Your task to perform on an android device: open app "DuckDuckGo Privacy Browser" (install if not already installed) Image 0: 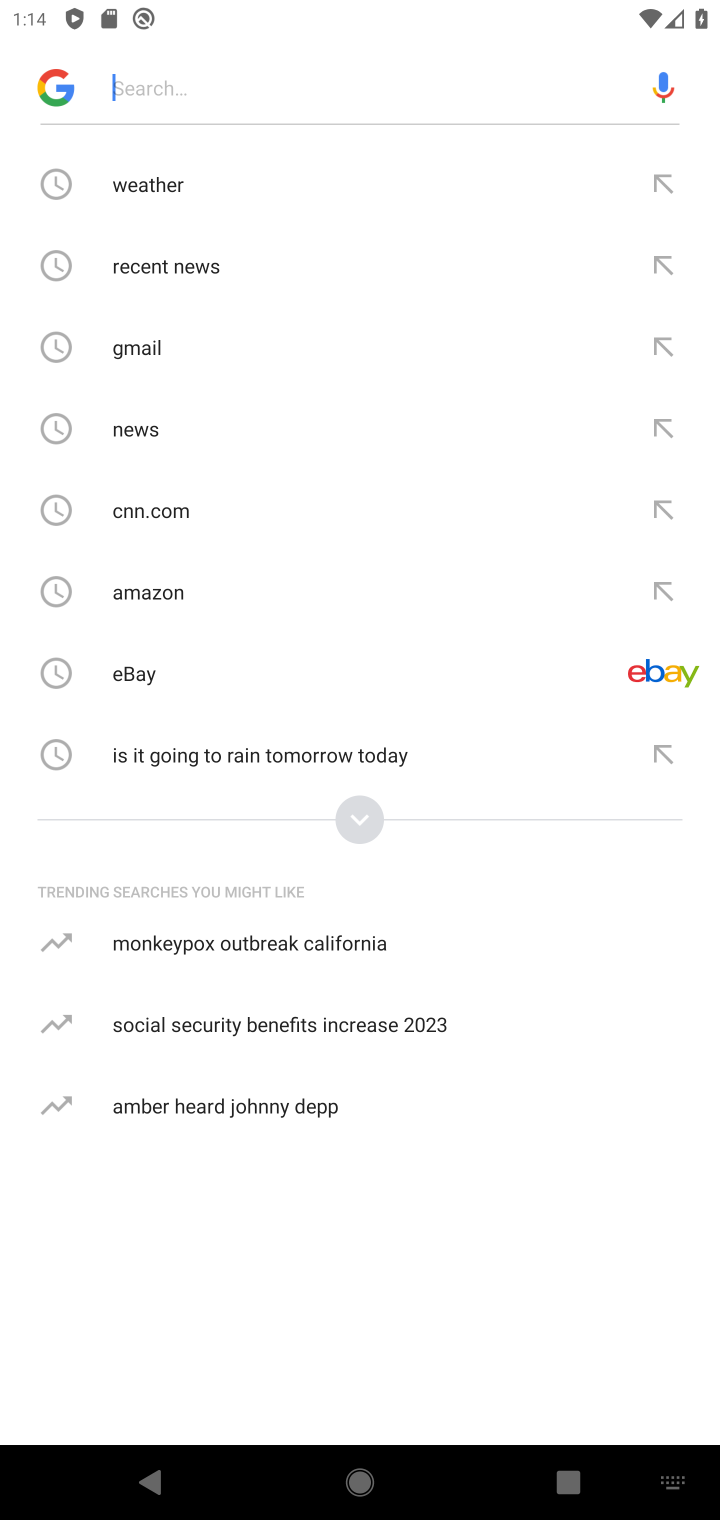
Step 0: press back button
Your task to perform on an android device: open app "DuckDuckGo Privacy Browser" (install if not already installed) Image 1: 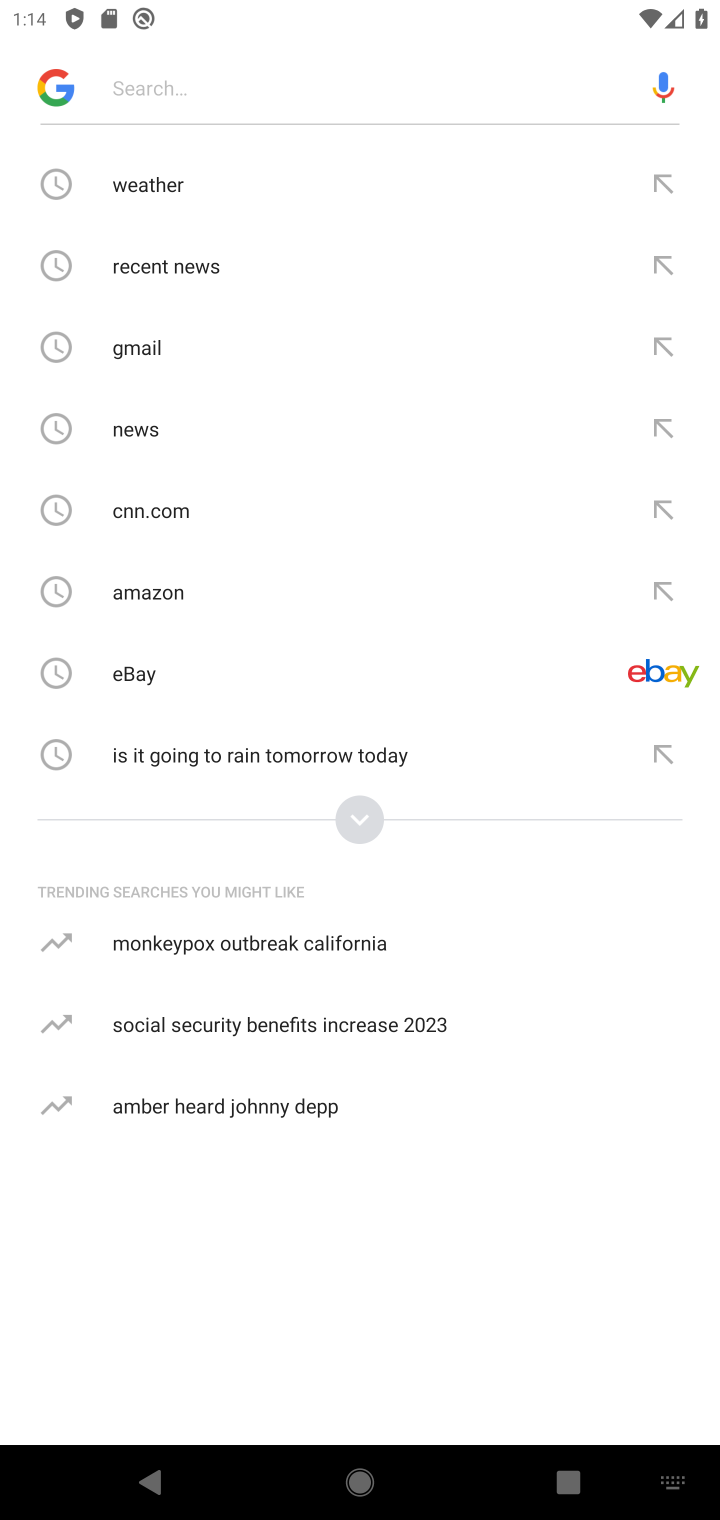
Step 1: press back button
Your task to perform on an android device: open app "DuckDuckGo Privacy Browser" (install if not already installed) Image 2: 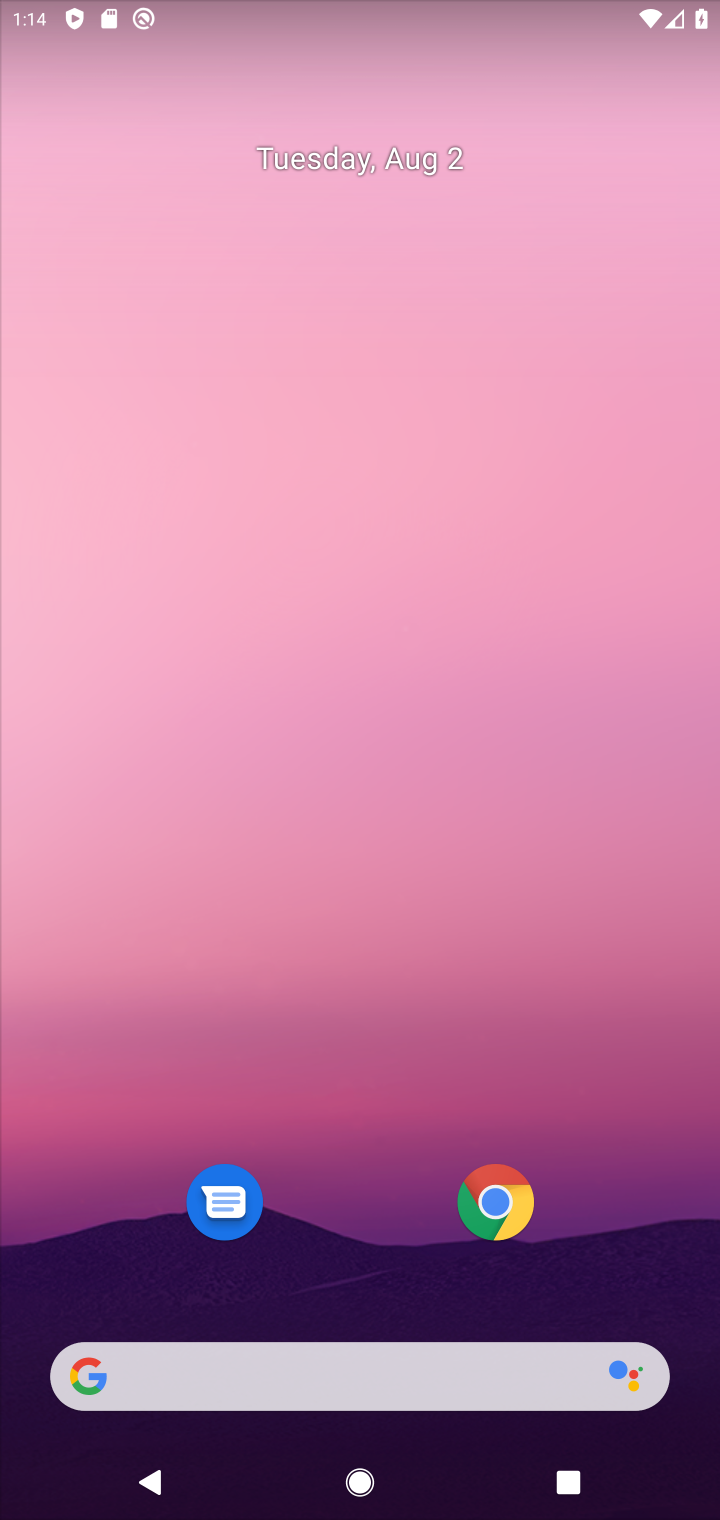
Step 2: press back button
Your task to perform on an android device: open app "DuckDuckGo Privacy Browser" (install if not already installed) Image 3: 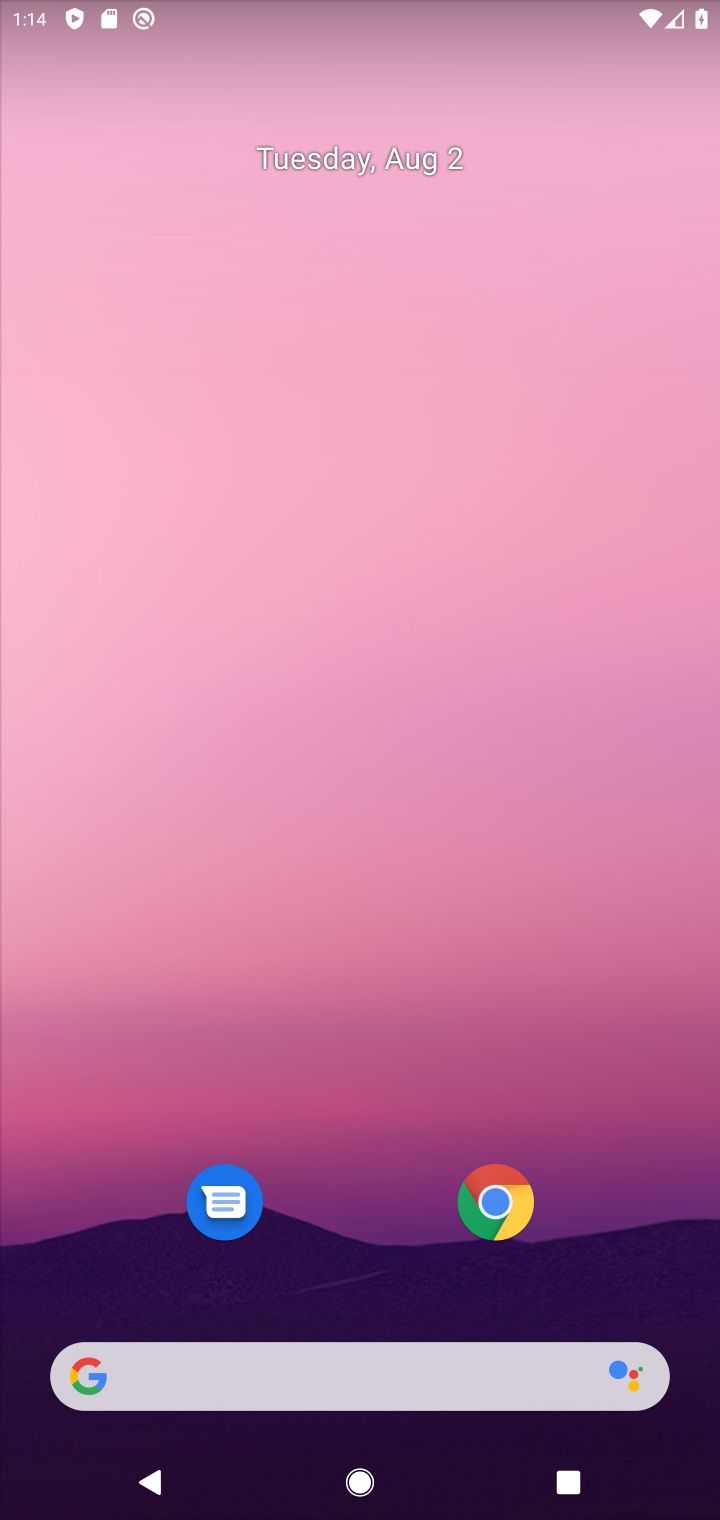
Step 3: drag from (127, 115) to (190, 189)
Your task to perform on an android device: open app "DuckDuckGo Privacy Browser" (install if not already installed) Image 4: 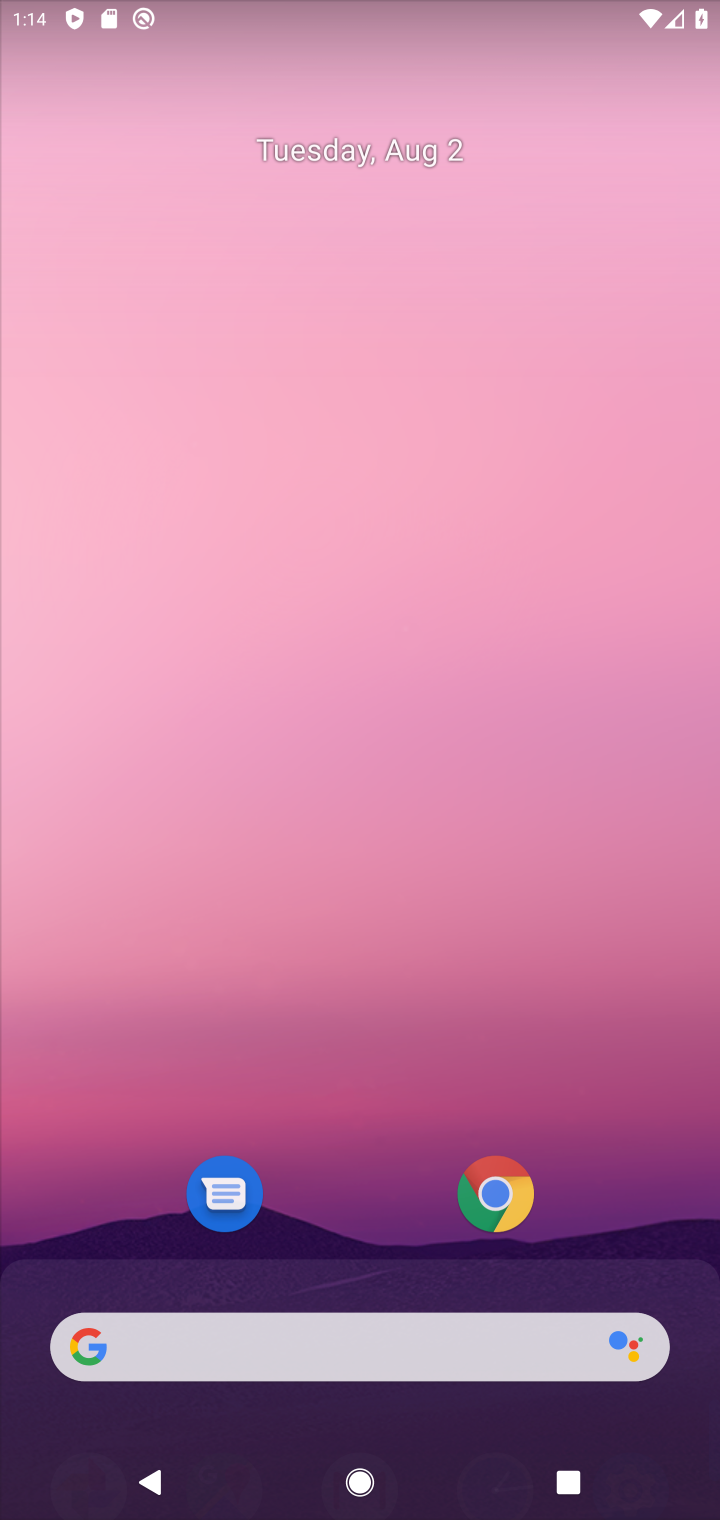
Step 4: drag from (305, 306) to (220, 330)
Your task to perform on an android device: open app "DuckDuckGo Privacy Browser" (install if not already installed) Image 5: 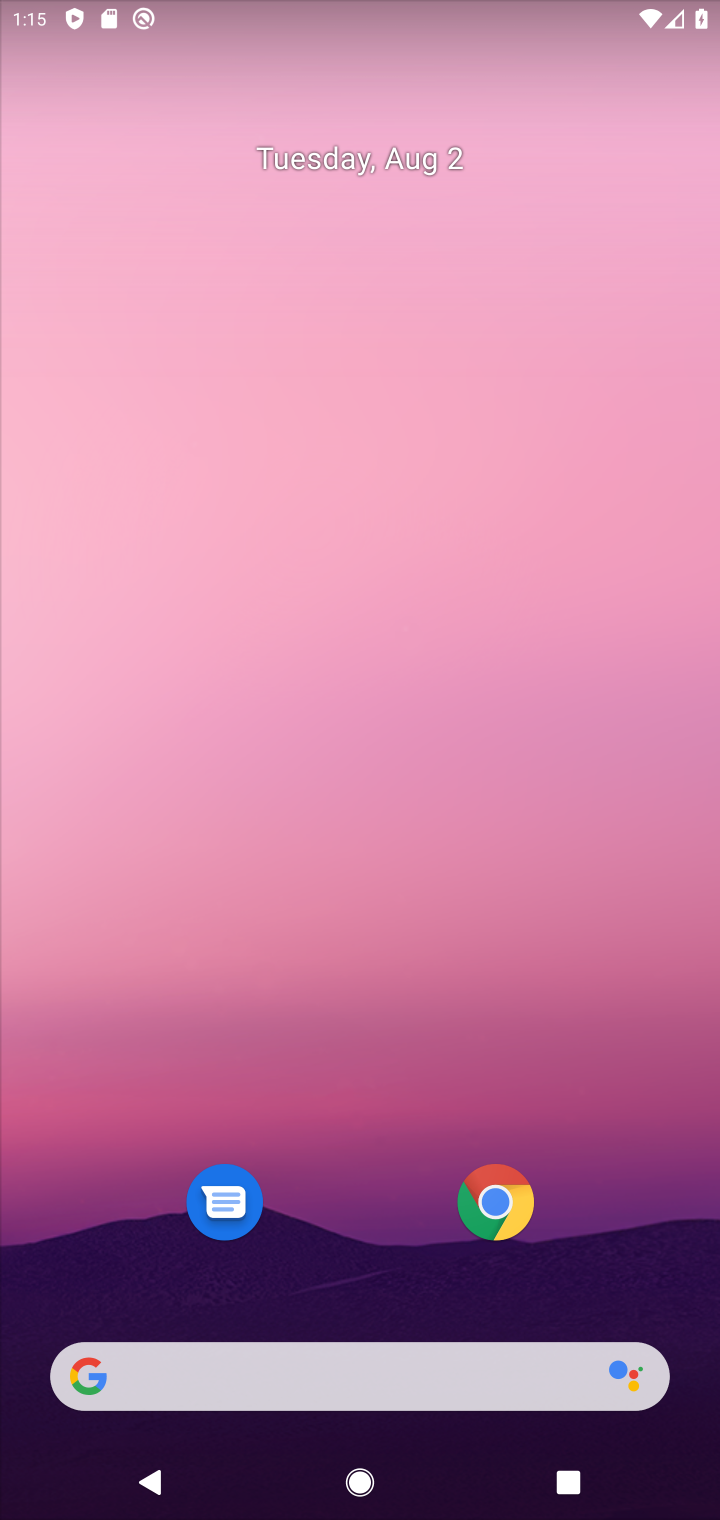
Step 5: drag from (232, 152) to (458, 6)
Your task to perform on an android device: open app "DuckDuckGo Privacy Browser" (install if not already installed) Image 6: 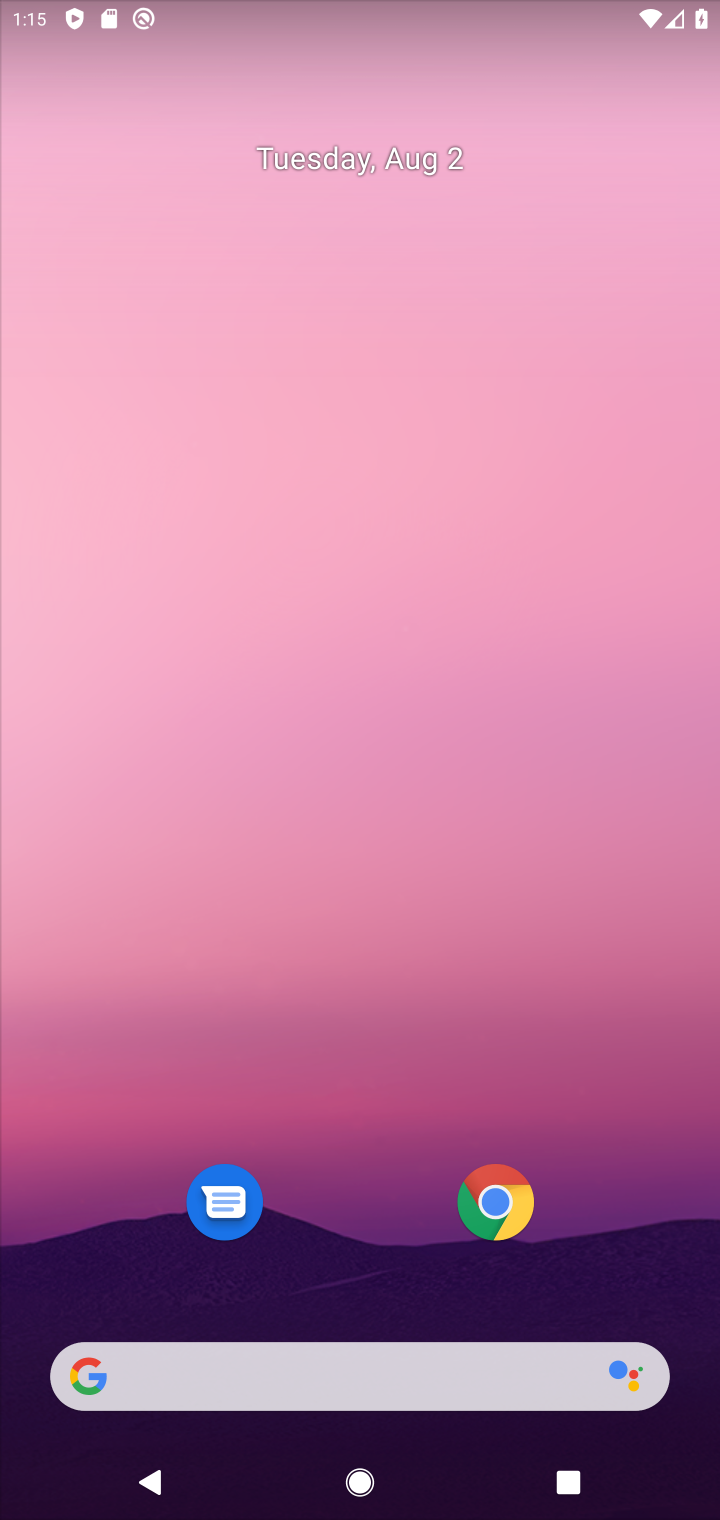
Step 6: drag from (402, 561) to (326, 406)
Your task to perform on an android device: open app "DuckDuckGo Privacy Browser" (install if not already installed) Image 7: 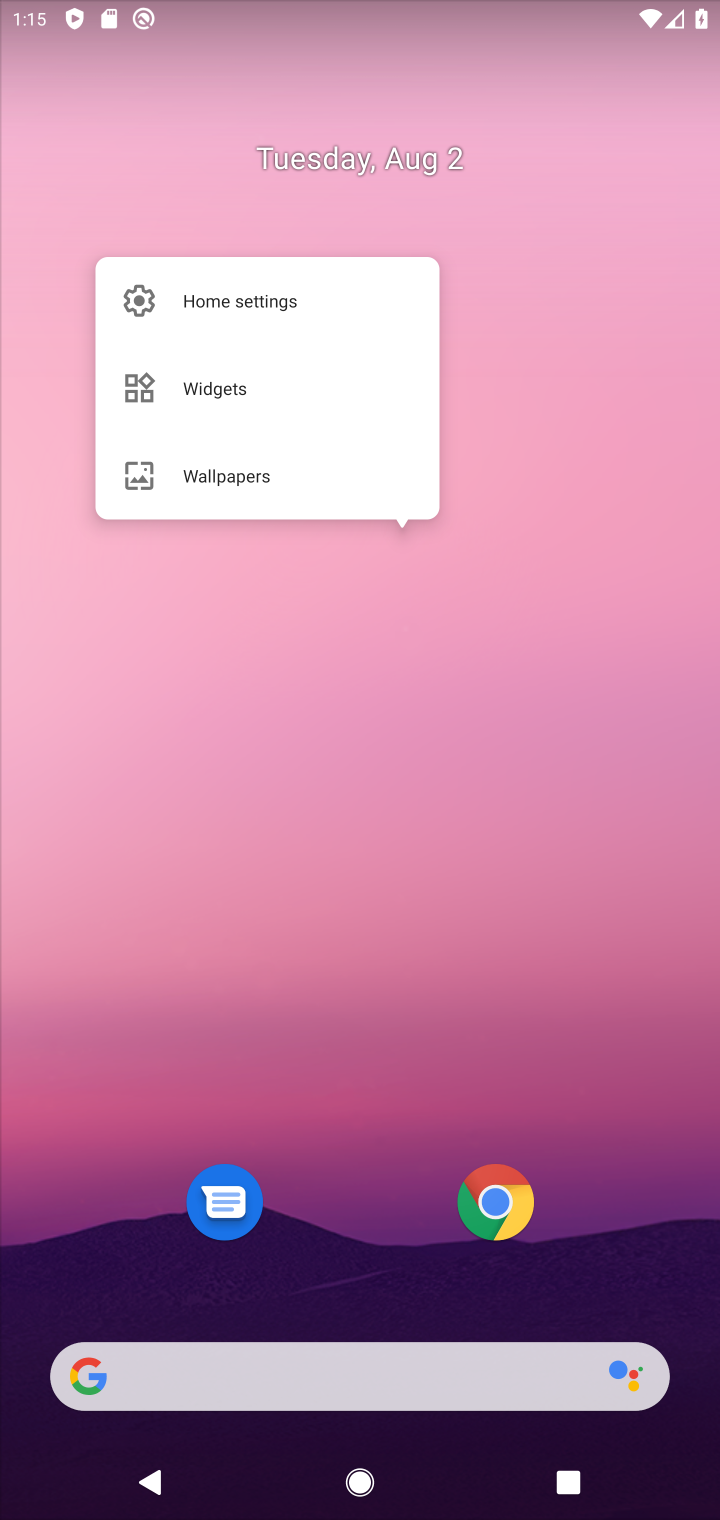
Step 7: drag from (297, 537) to (242, 456)
Your task to perform on an android device: open app "DuckDuckGo Privacy Browser" (install if not already installed) Image 8: 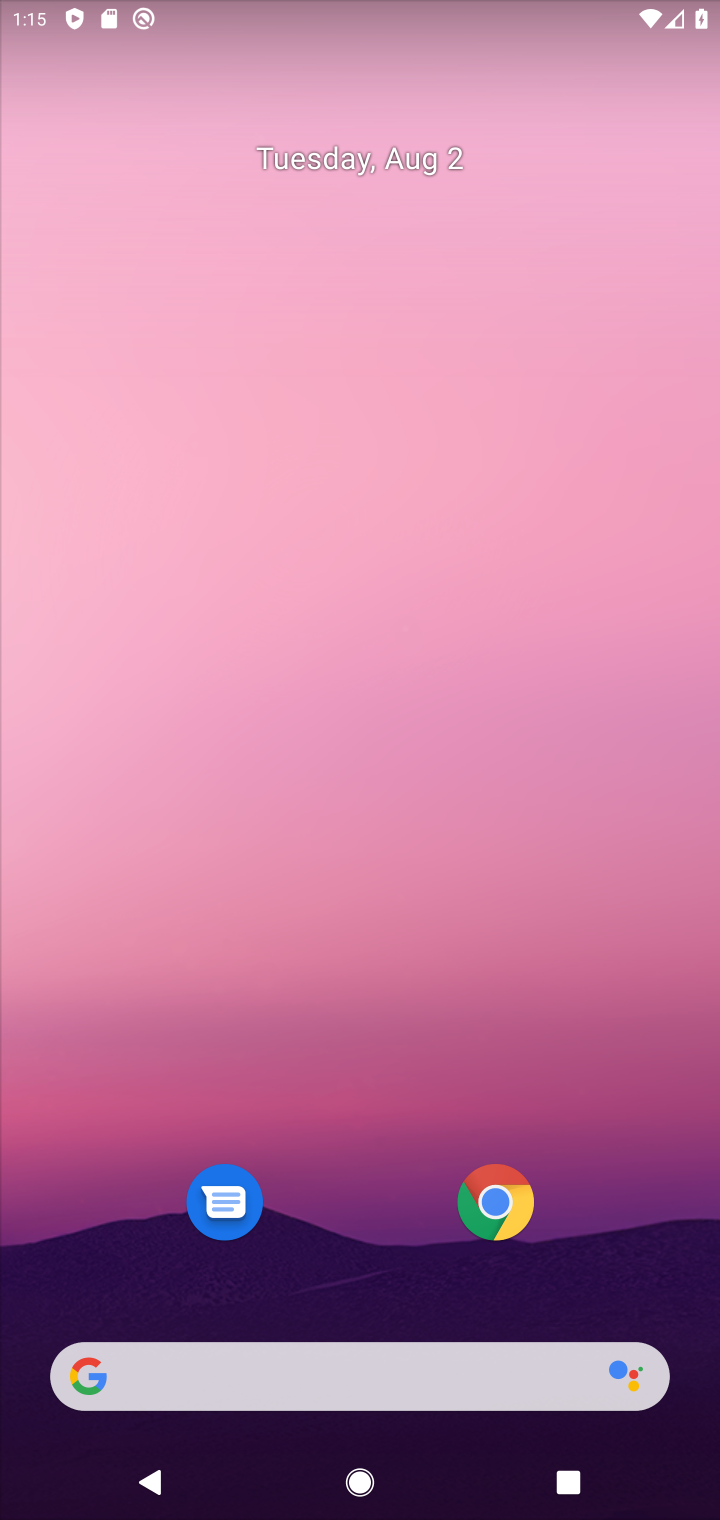
Step 8: drag from (177, 463) to (377, 261)
Your task to perform on an android device: open app "DuckDuckGo Privacy Browser" (install if not already installed) Image 9: 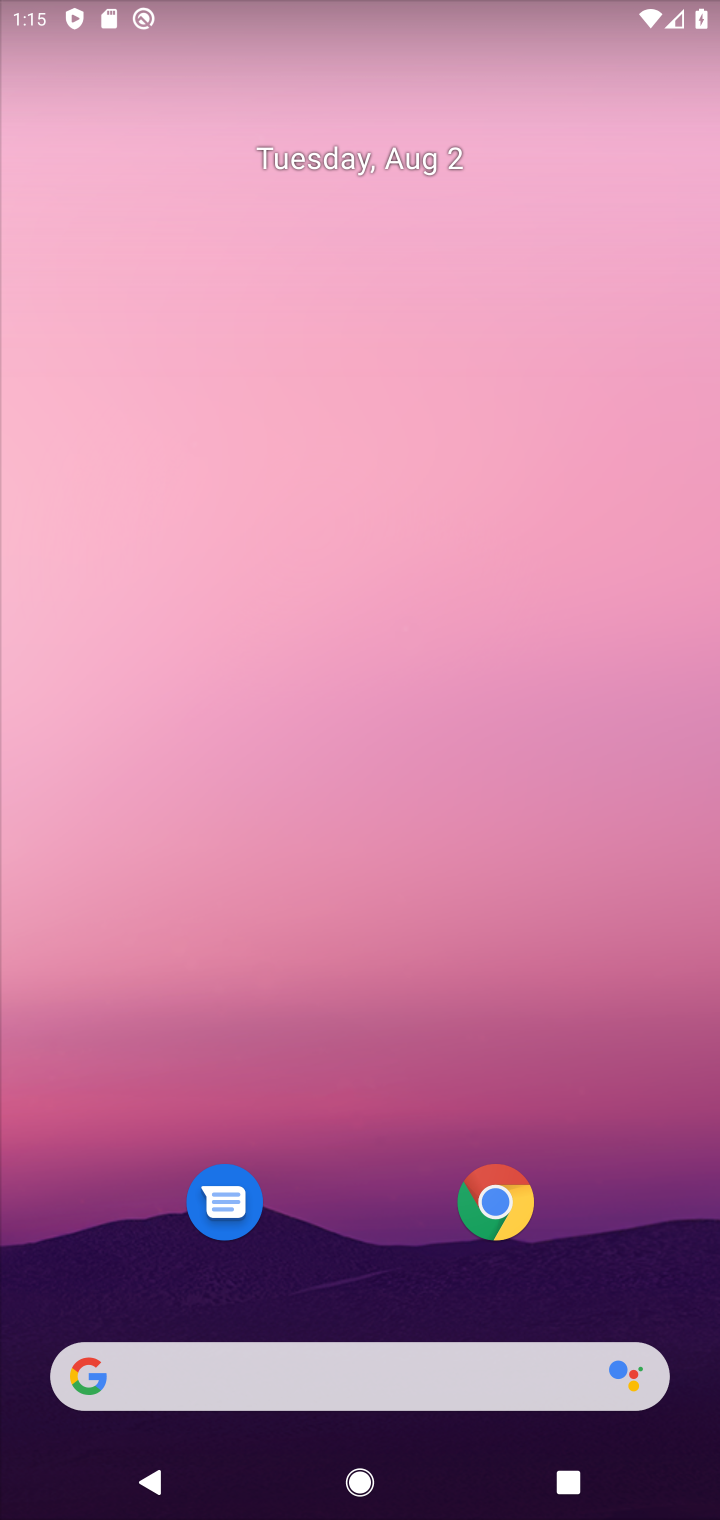
Step 9: drag from (443, 568) to (277, 186)
Your task to perform on an android device: open app "DuckDuckGo Privacy Browser" (install if not already installed) Image 10: 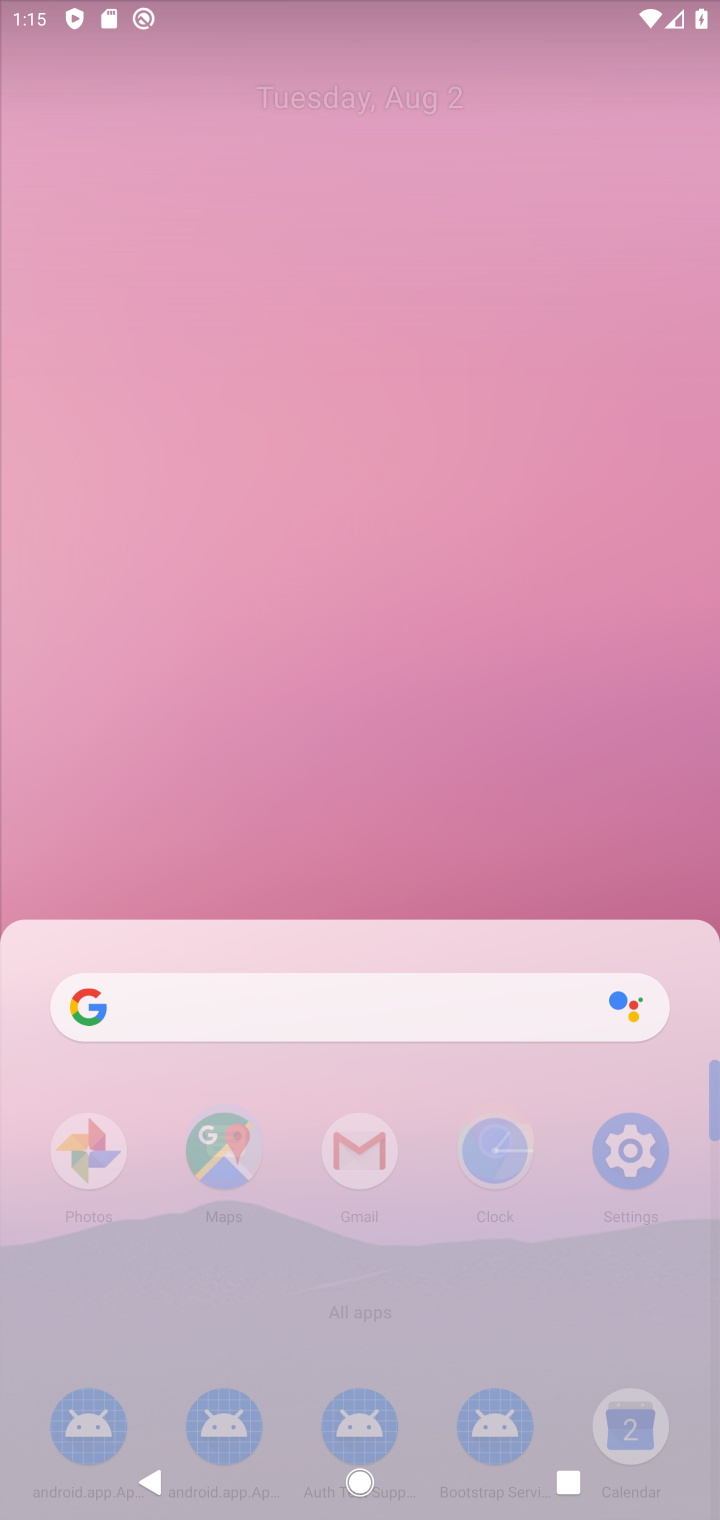
Step 10: drag from (77, 230) to (307, 500)
Your task to perform on an android device: open app "DuckDuckGo Privacy Browser" (install if not already installed) Image 11: 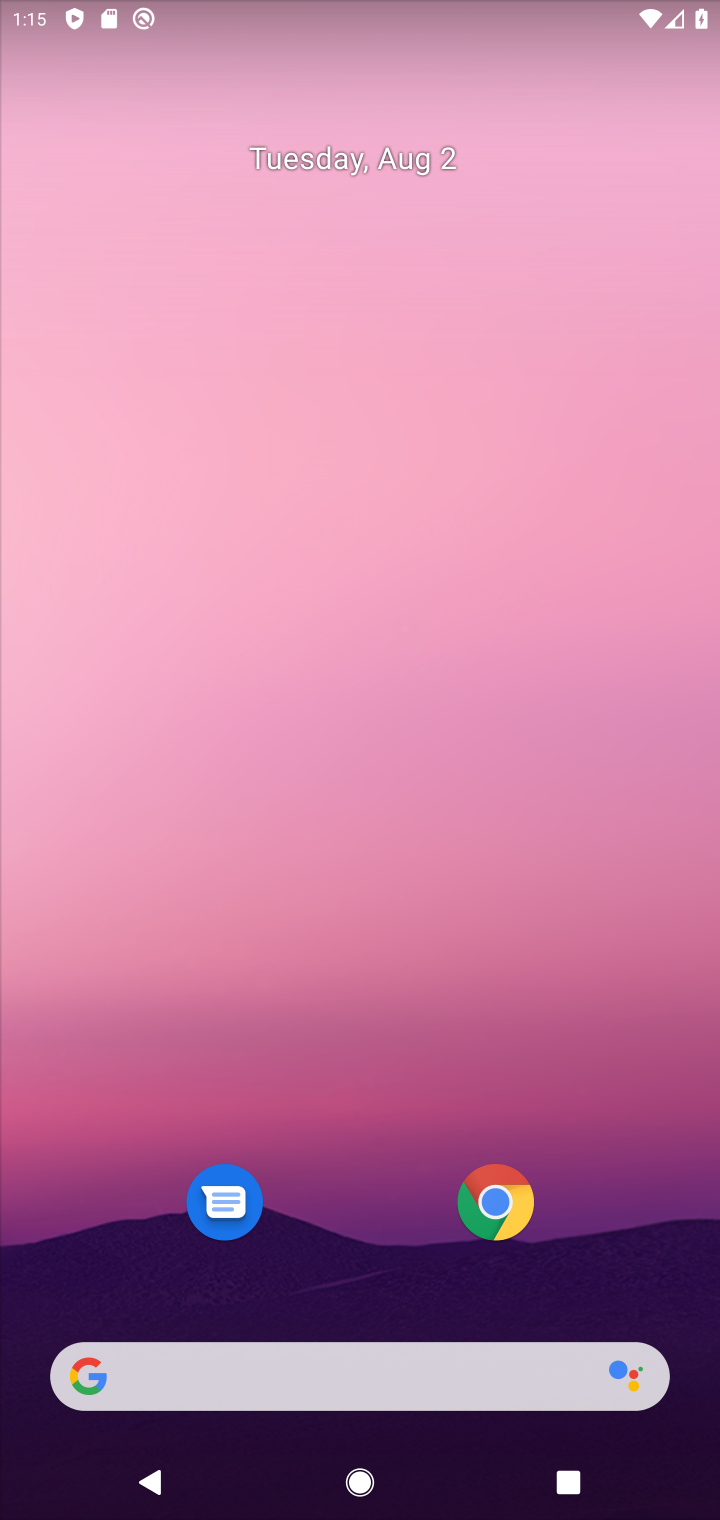
Step 11: drag from (217, 699) to (165, 185)
Your task to perform on an android device: open app "DuckDuckGo Privacy Browser" (install if not already installed) Image 12: 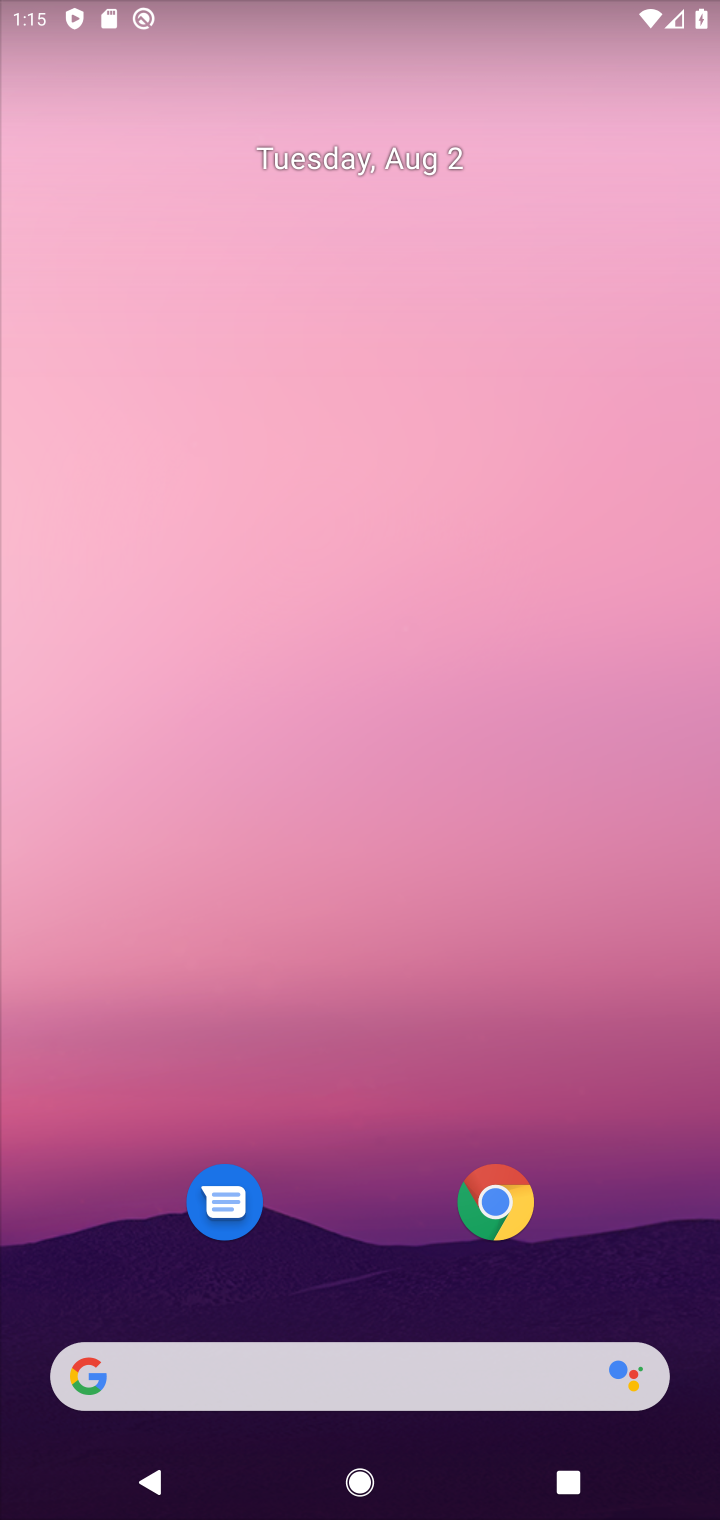
Step 12: drag from (244, 1074) to (399, 349)
Your task to perform on an android device: open app "DuckDuckGo Privacy Browser" (install if not already installed) Image 13: 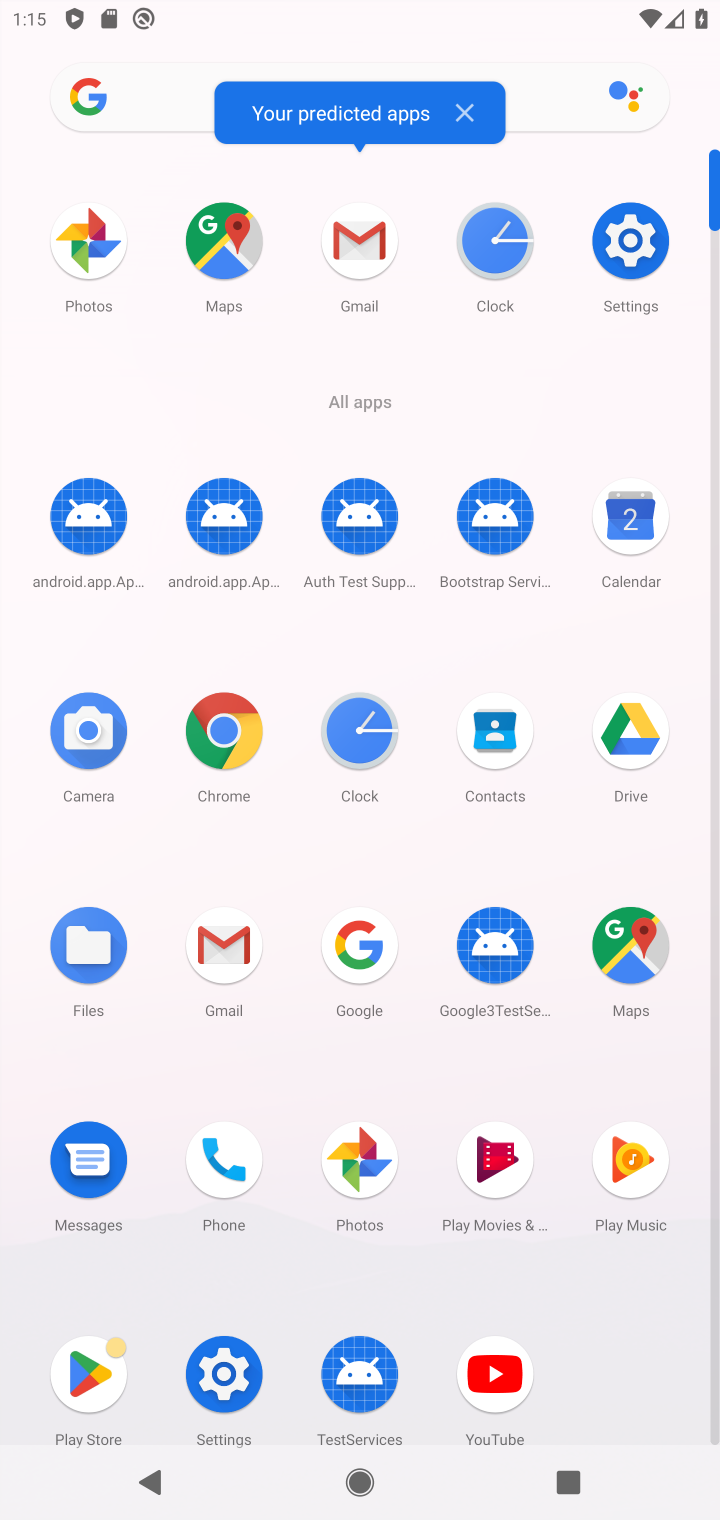
Step 13: click (346, 104)
Your task to perform on an android device: open app "DuckDuckGo Privacy Browser" (install if not already installed) Image 14: 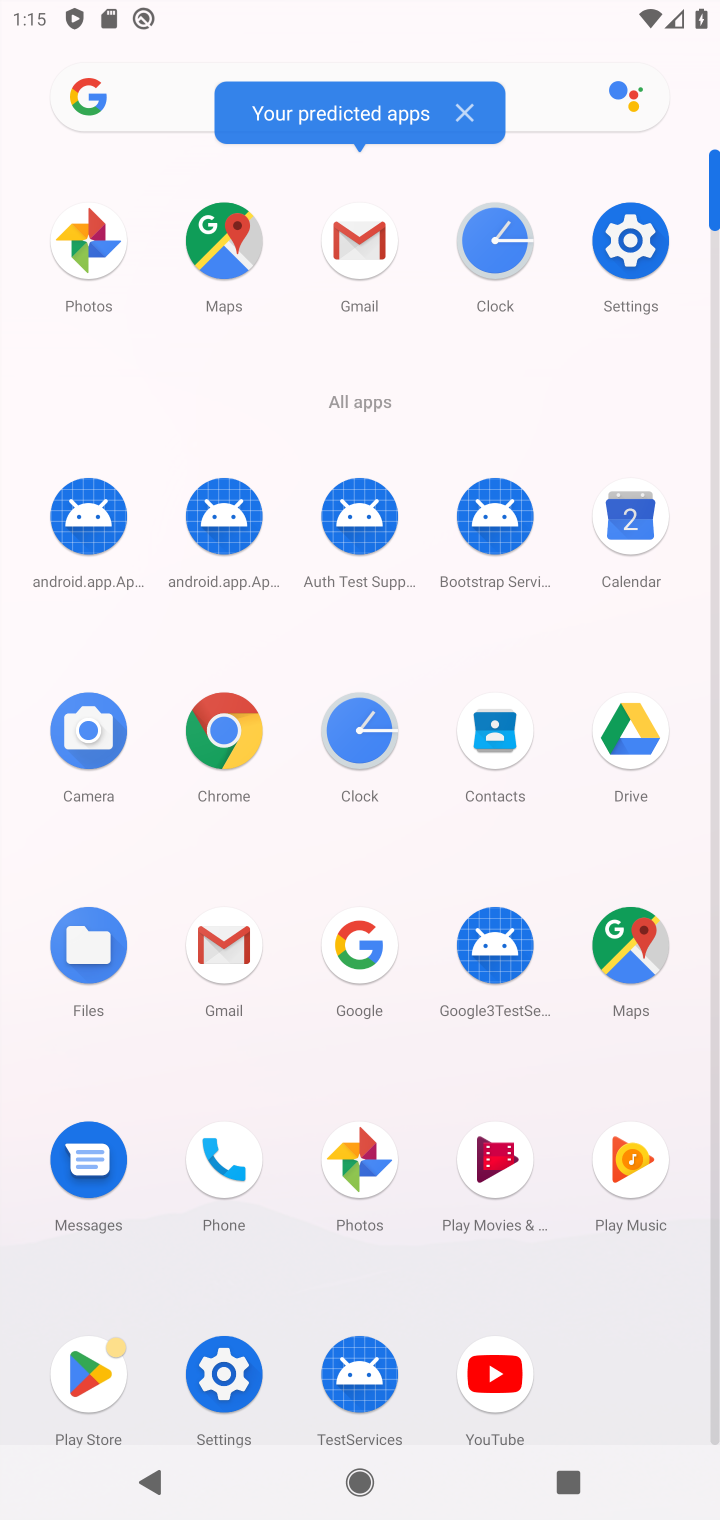
Step 14: drag from (366, 940) to (406, 603)
Your task to perform on an android device: open app "DuckDuckGo Privacy Browser" (install if not already installed) Image 15: 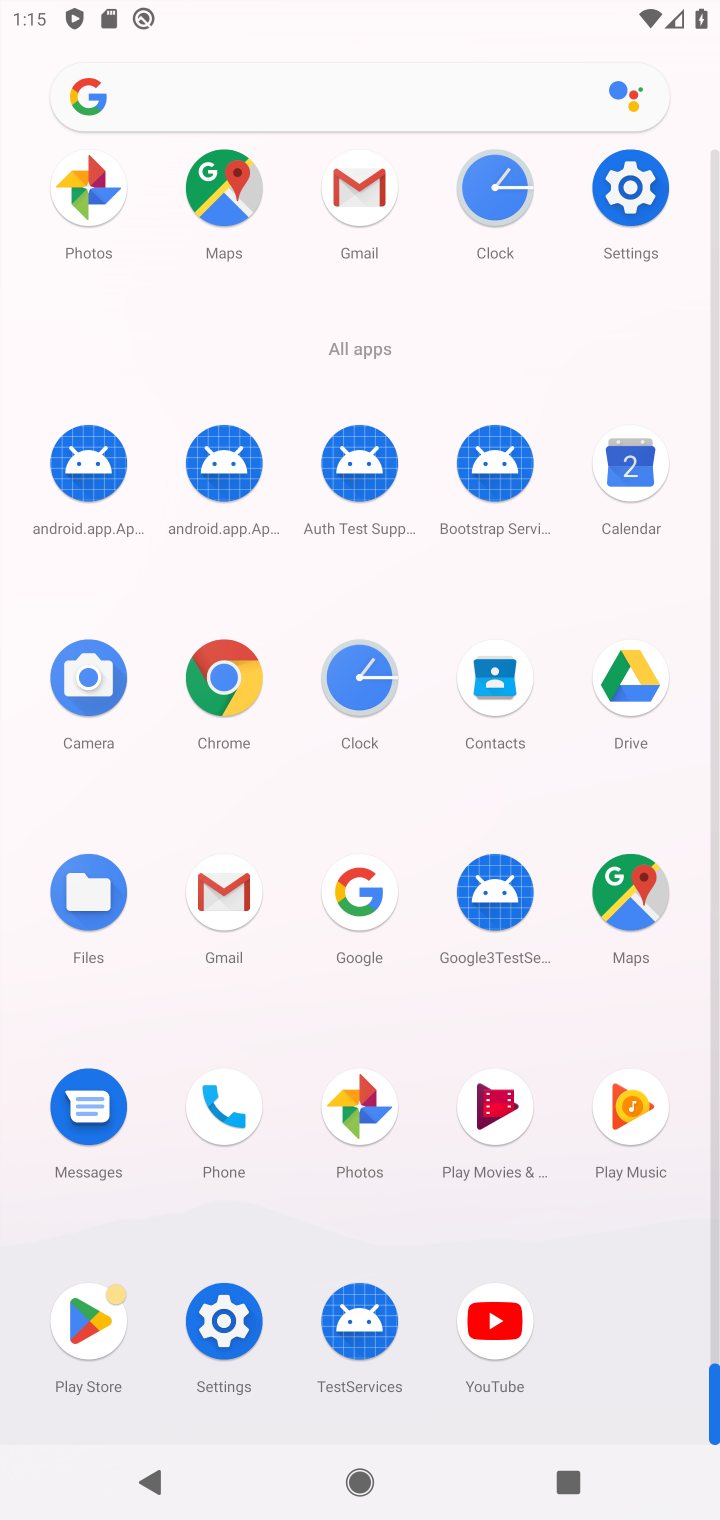
Step 15: click (91, 1325)
Your task to perform on an android device: open app "DuckDuckGo Privacy Browser" (install if not already installed) Image 16: 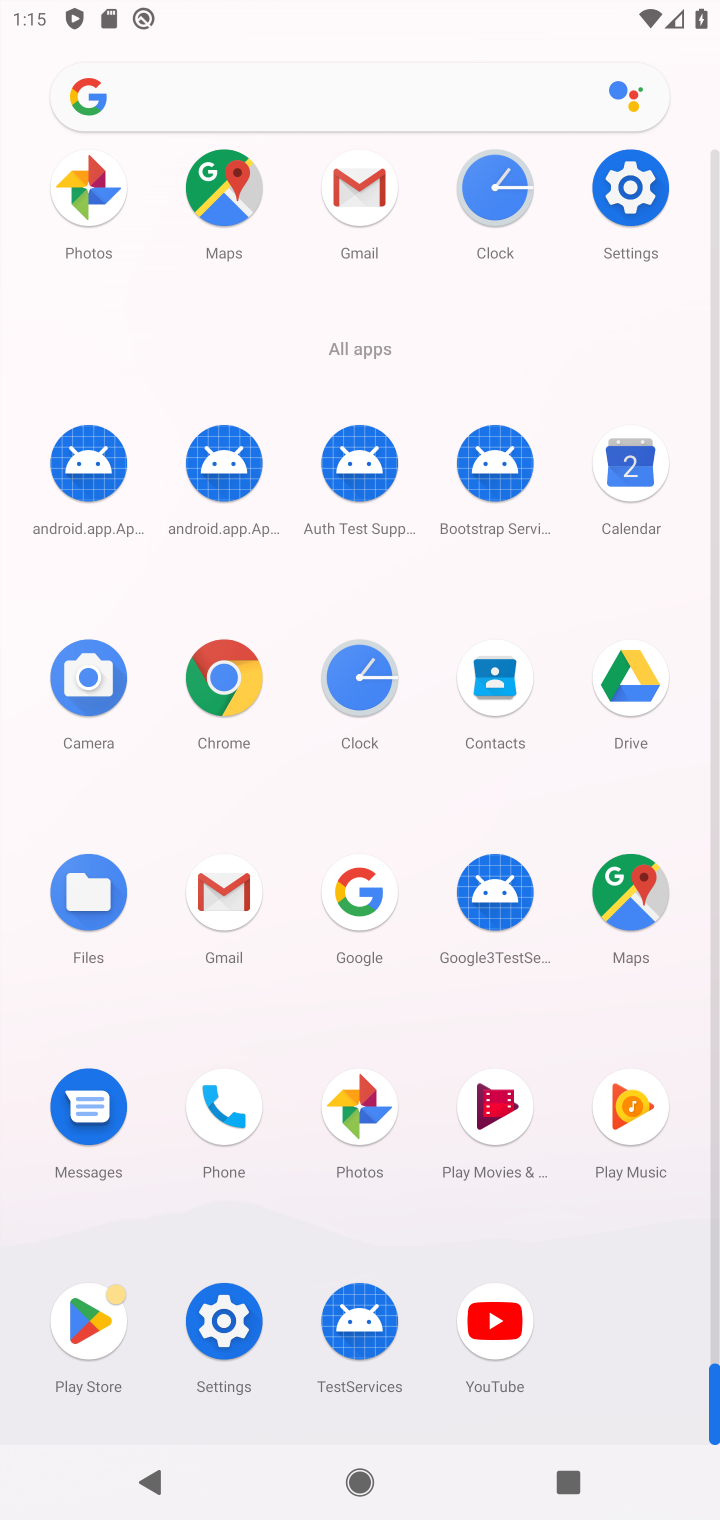
Step 16: click (87, 1321)
Your task to perform on an android device: open app "DuckDuckGo Privacy Browser" (install if not already installed) Image 17: 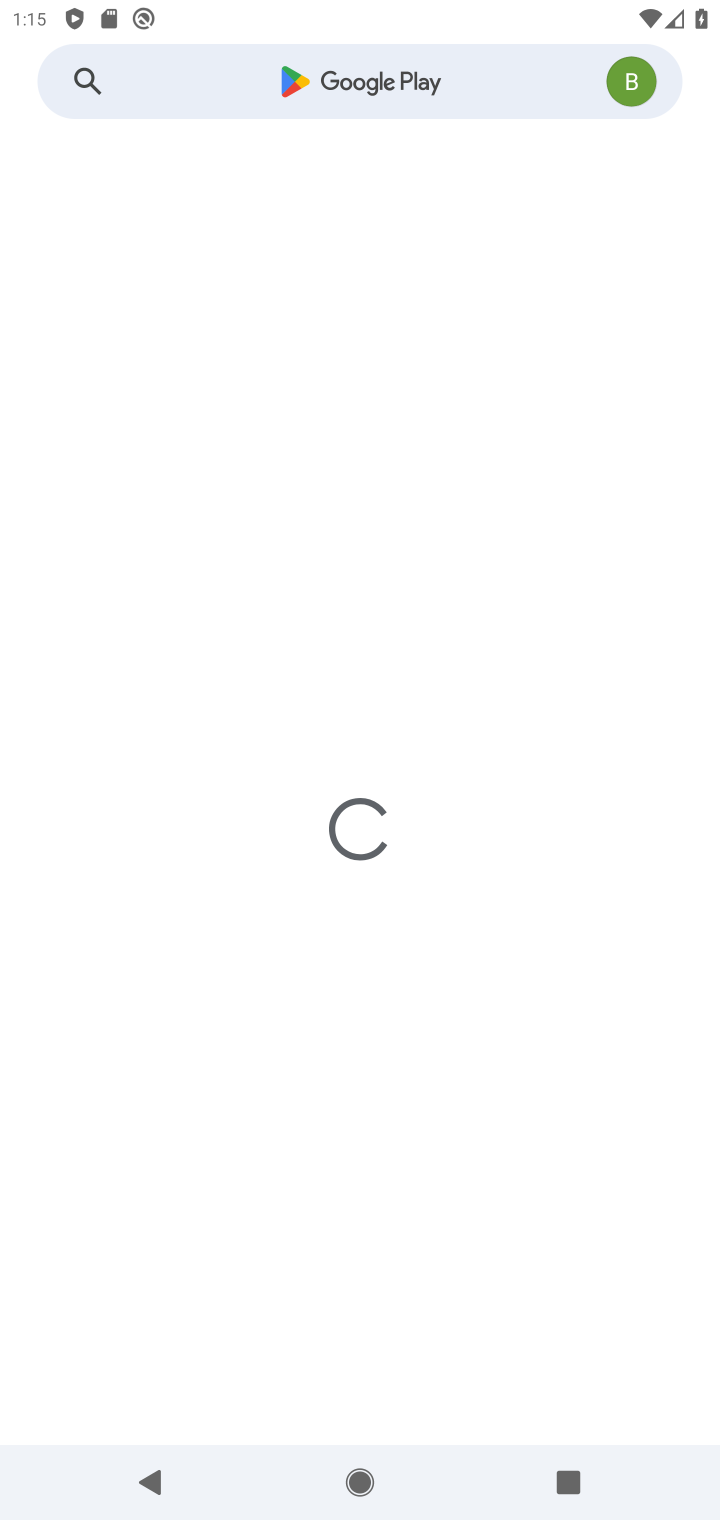
Step 17: click (326, 88)
Your task to perform on an android device: open app "DuckDuckGo Privacy Browser" (install if not already installed) Image 18: 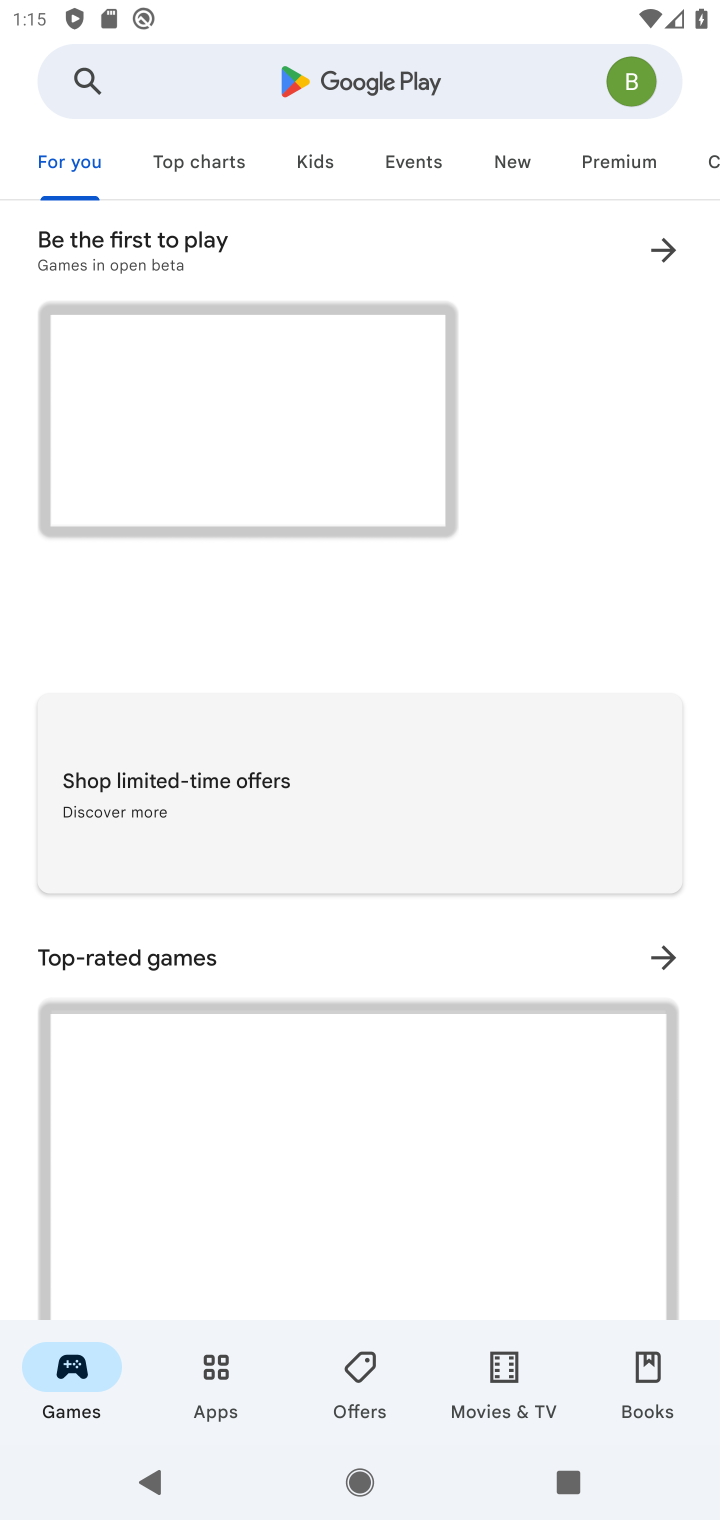
Step 18: click (345, 81)
Your task to perform on an android device: open app "DuckDuckGo Privacy Browser" (install if not already installed) Image 19: 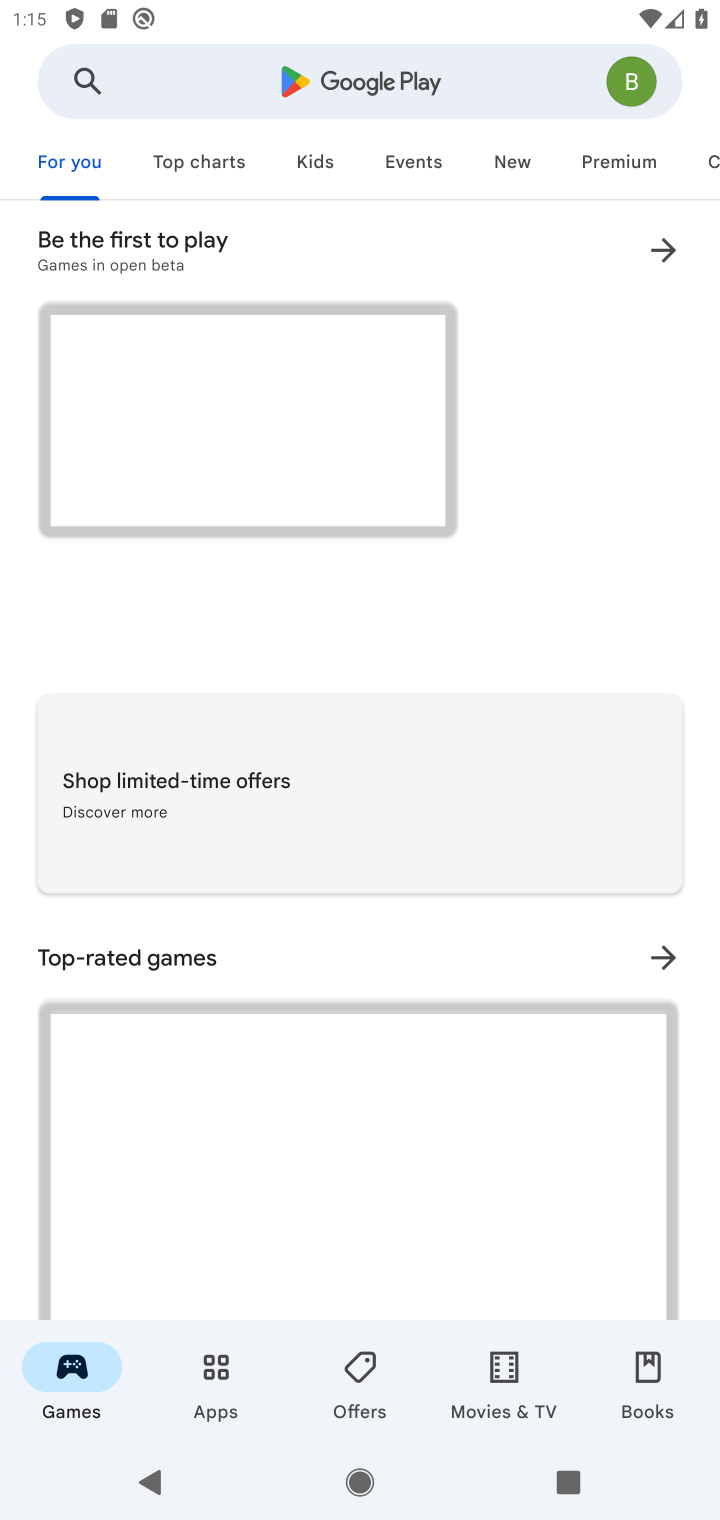
Step 19: click (349, 81)
Your task to perform on an android device: open app "DuckDuckGo Privacy Browser" (install if not already installed) Image 20: 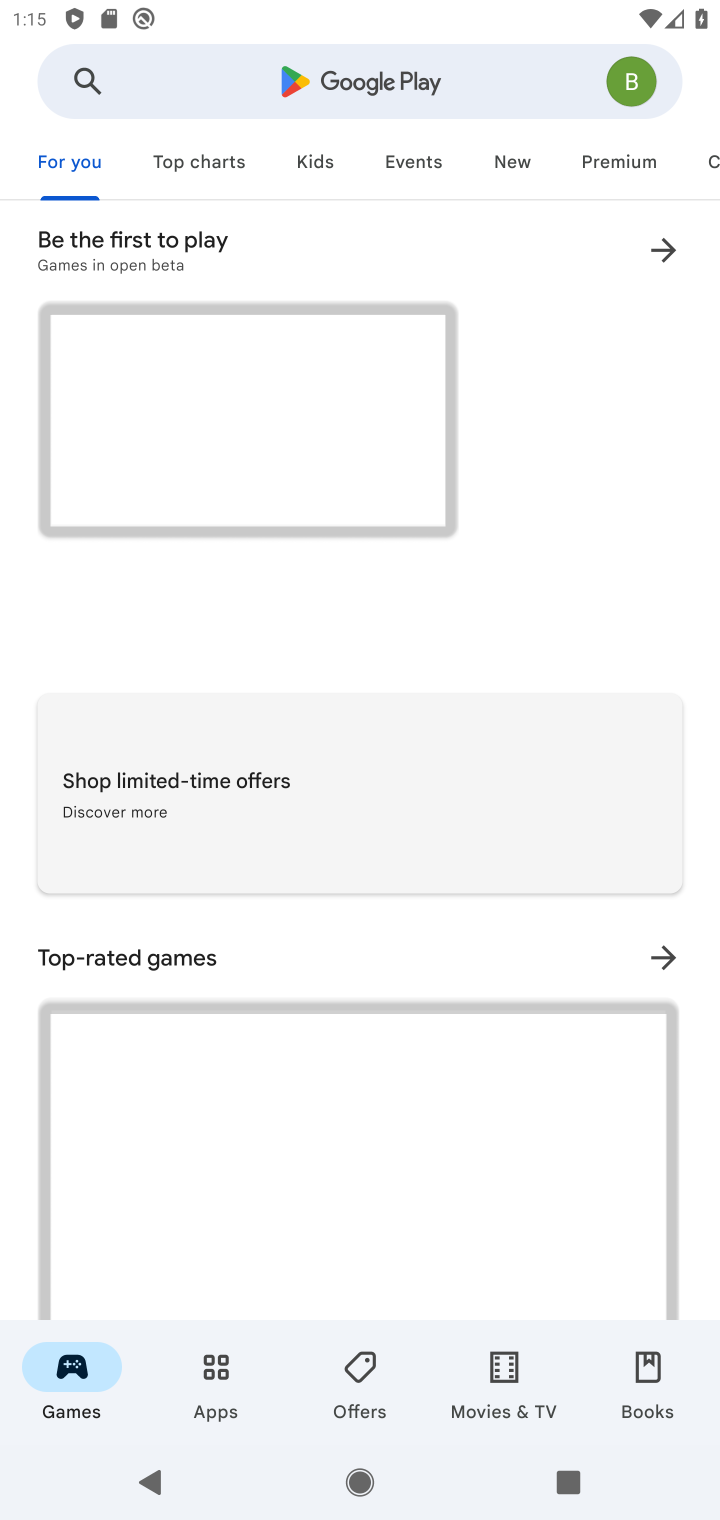
Step 20: click (353, 73)
Your task to perform on an android device: open app "DuckDuckGo Privacy Browser" (install if not already installed) Image 21: 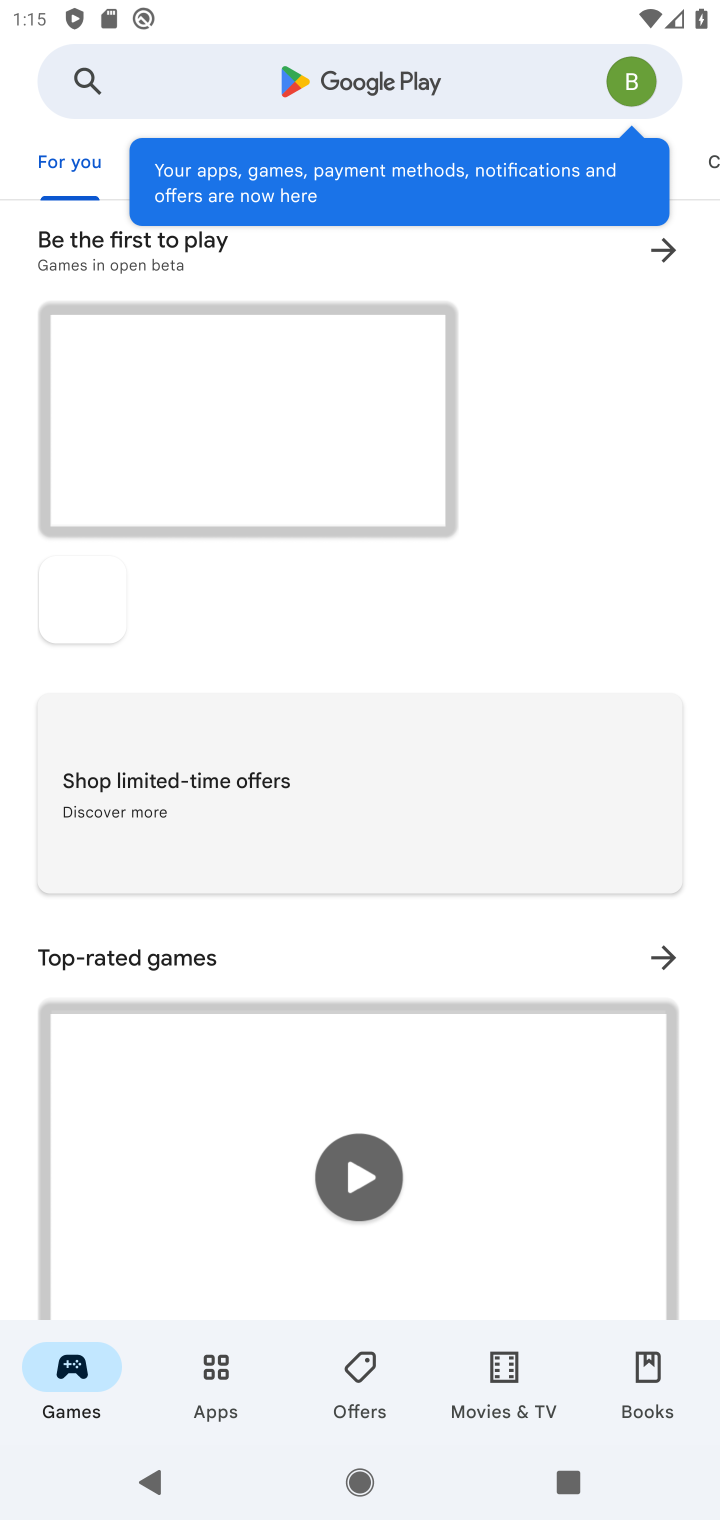
Step 21: click (358, 70)
Your task to perform on an android device: open app "DuckDuckGo Privacy Browser" (install if not already installed) Image 22: 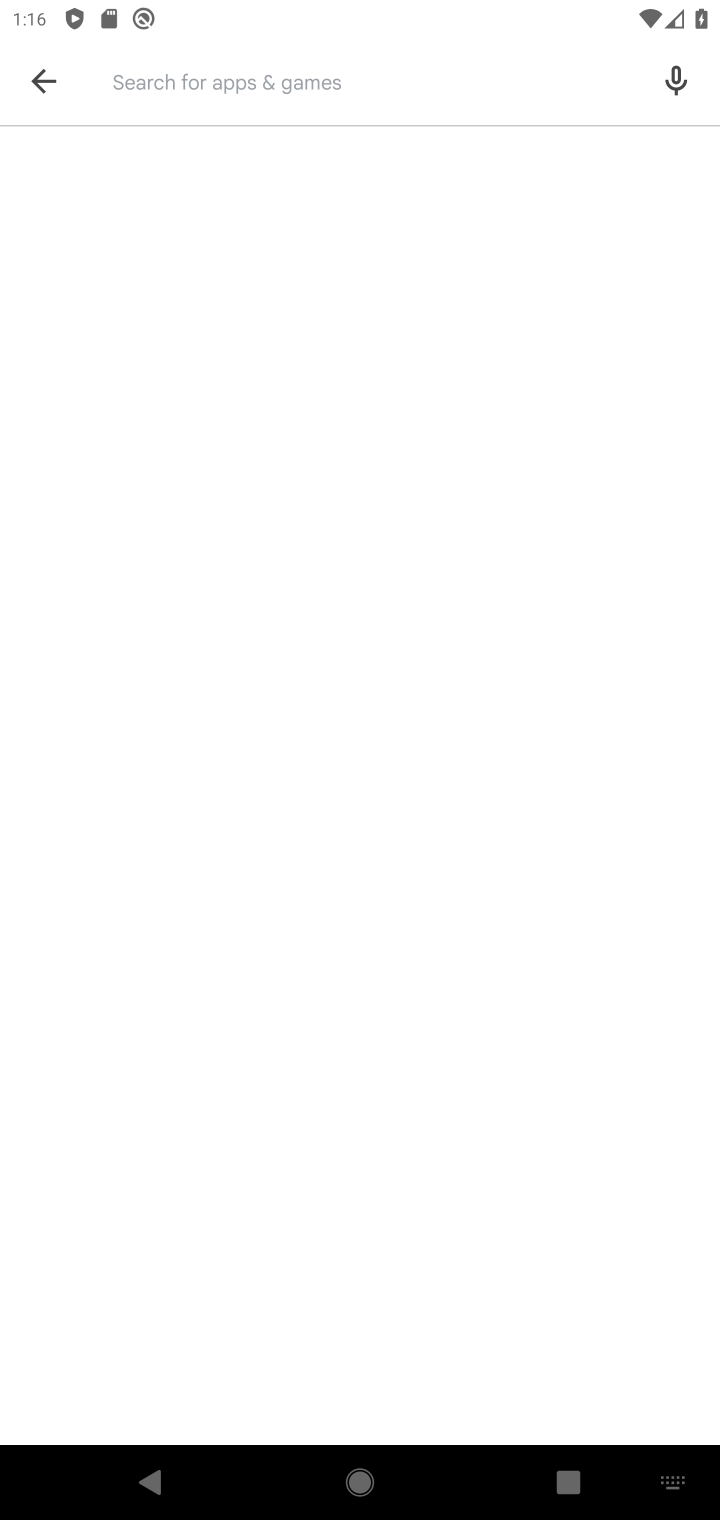
Step 22: type "duck"
Your task to perform on an android device: open app "DuckDuckGo Privacy Browser" (install if not already installed) Image 23: 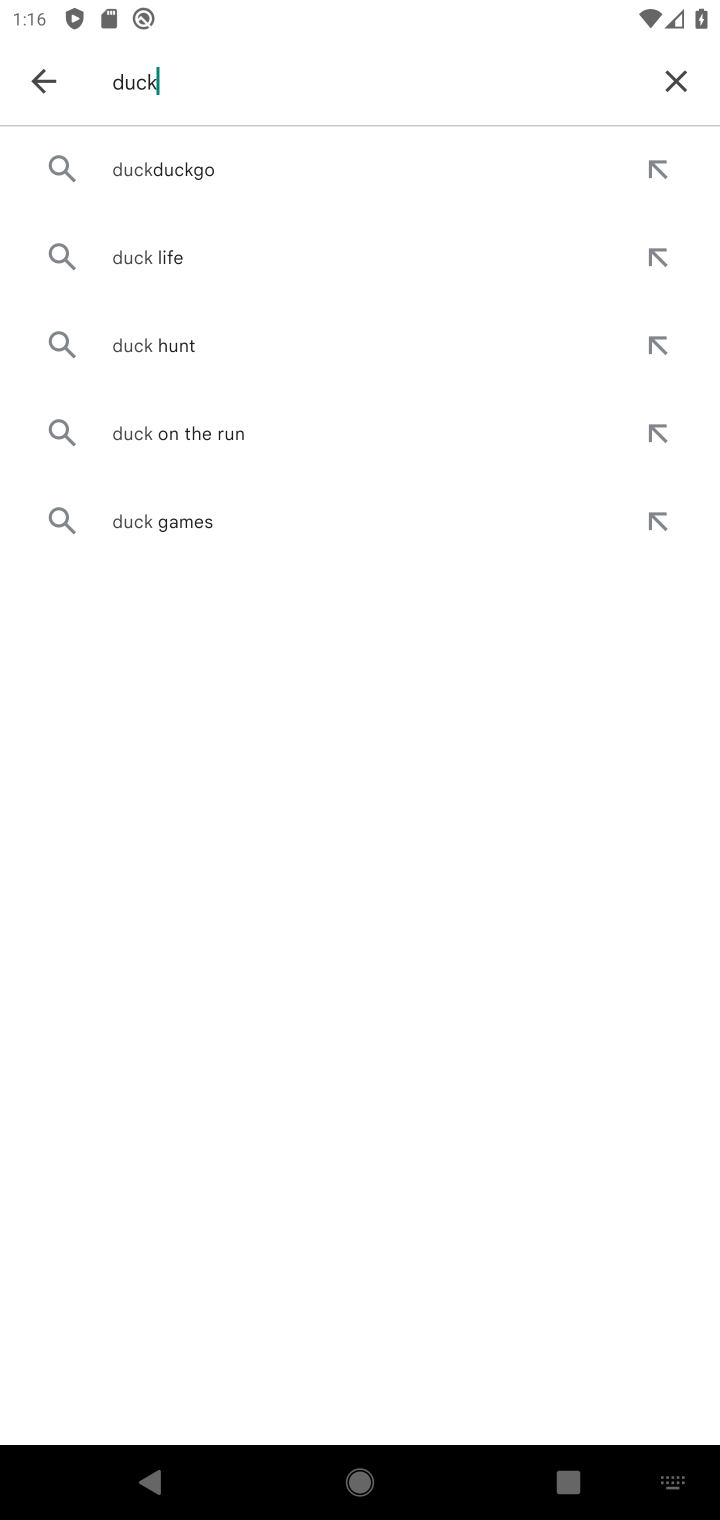
Step 23: click (152, 184)
Your task to perform on an android device: open app "DuckDuckGo Privacy Browser" (install if not already installed) Image 24: 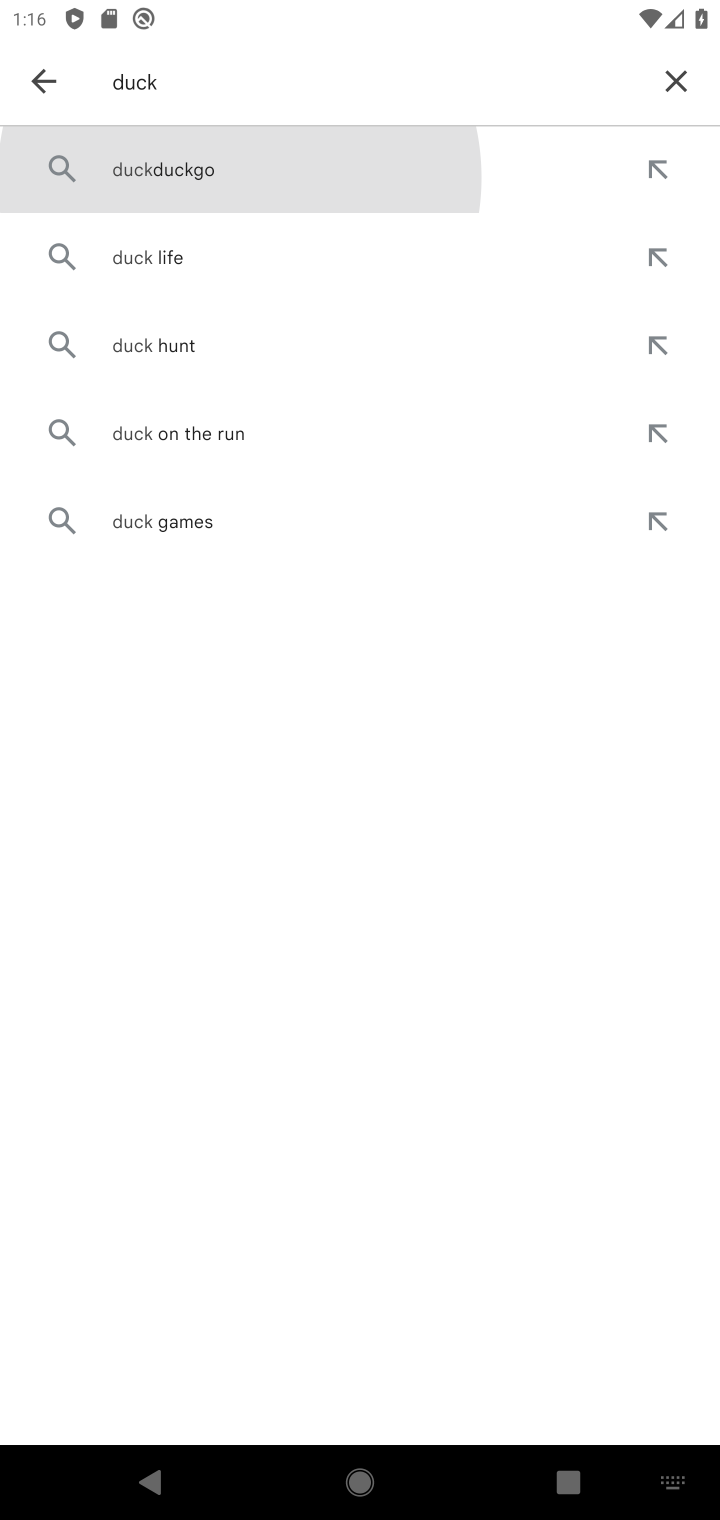
Step 24: click (168, 182)
Your task to perform on an android device: open app "DuckDuckGo Privacy Browser" (install if not already installed) Image 25: 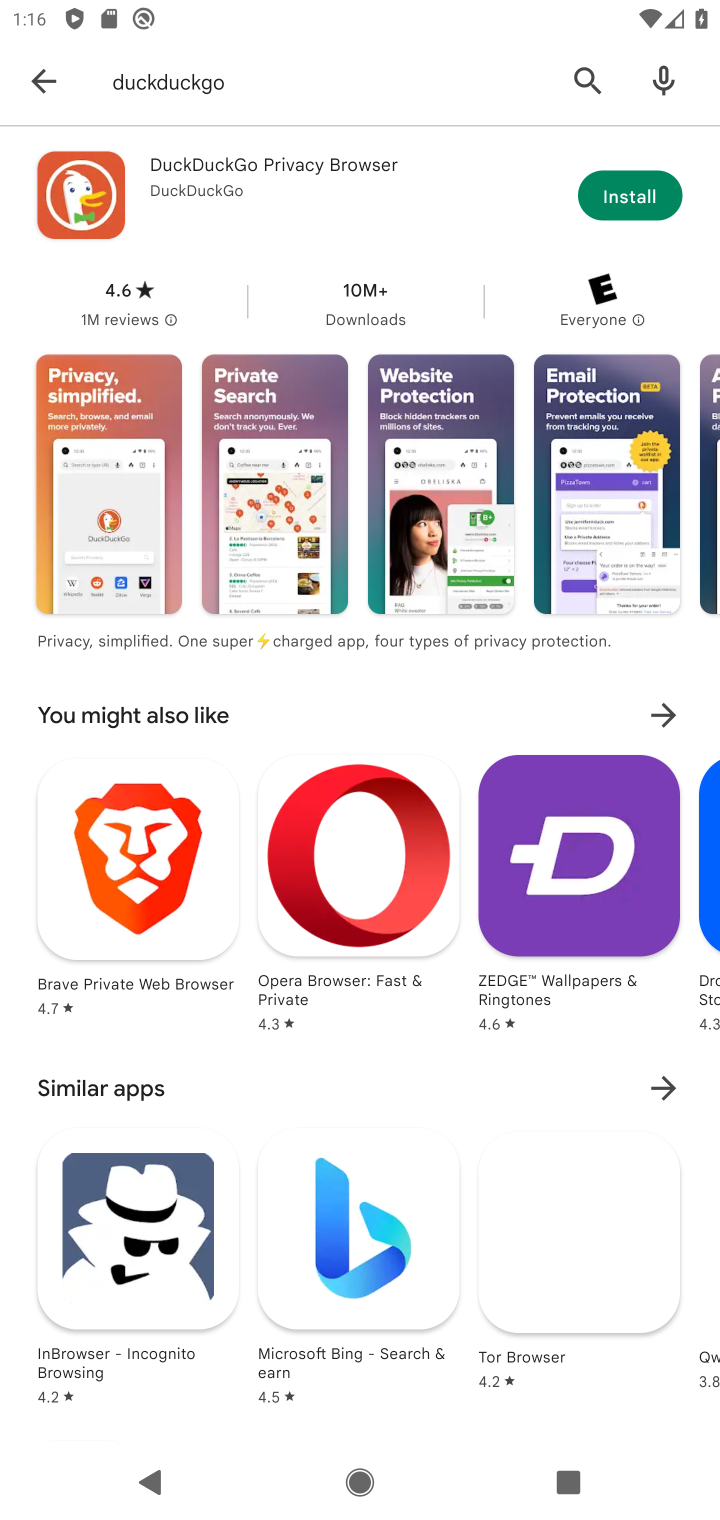
Step 25: click (587, 195)
Your task to perform on an android device: open app "DuckDuckGo Privacy Browser" (install if not already installed) Image 26: 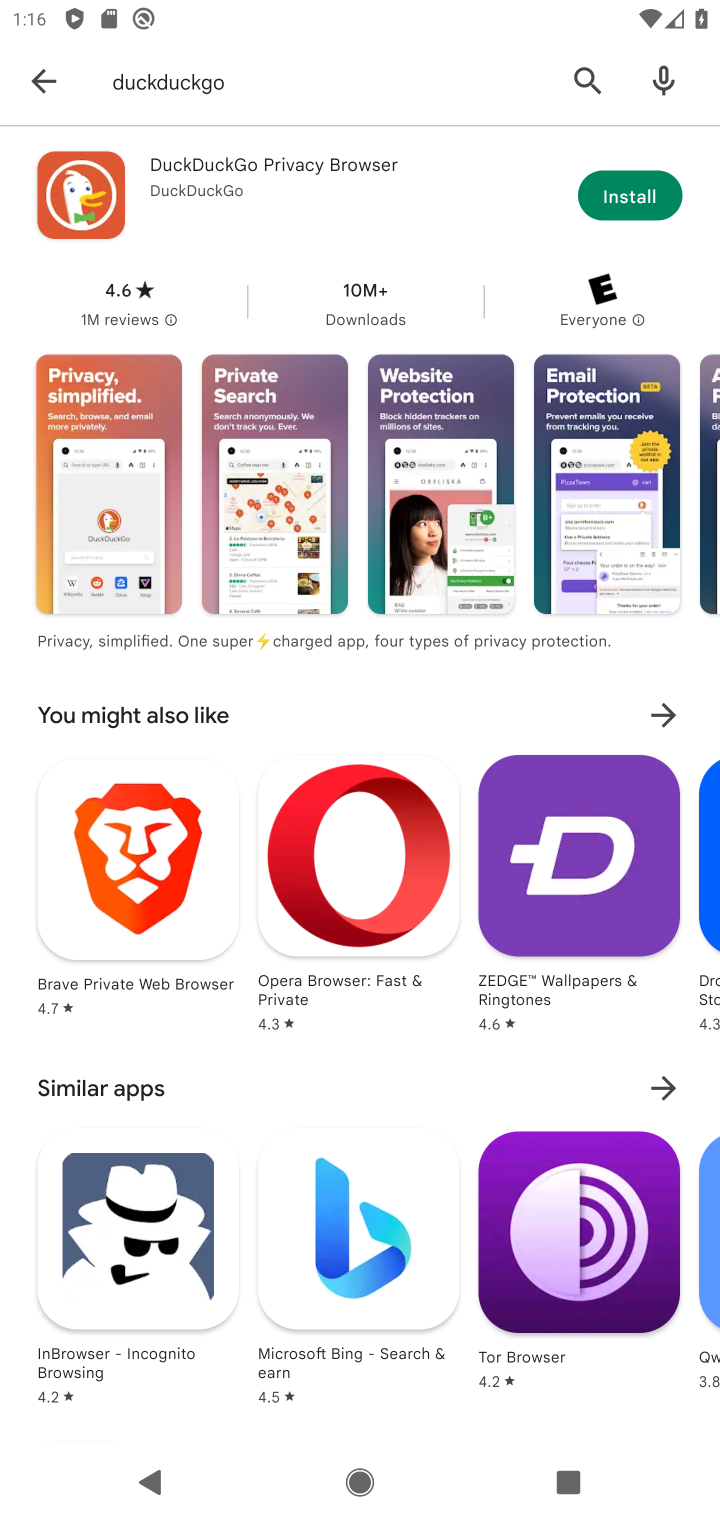
Step 26: click (593, 201)
Your task to perform on an android device: open app "DuckDuckGo Privacy Browser" (install if not already installed) Image 27: 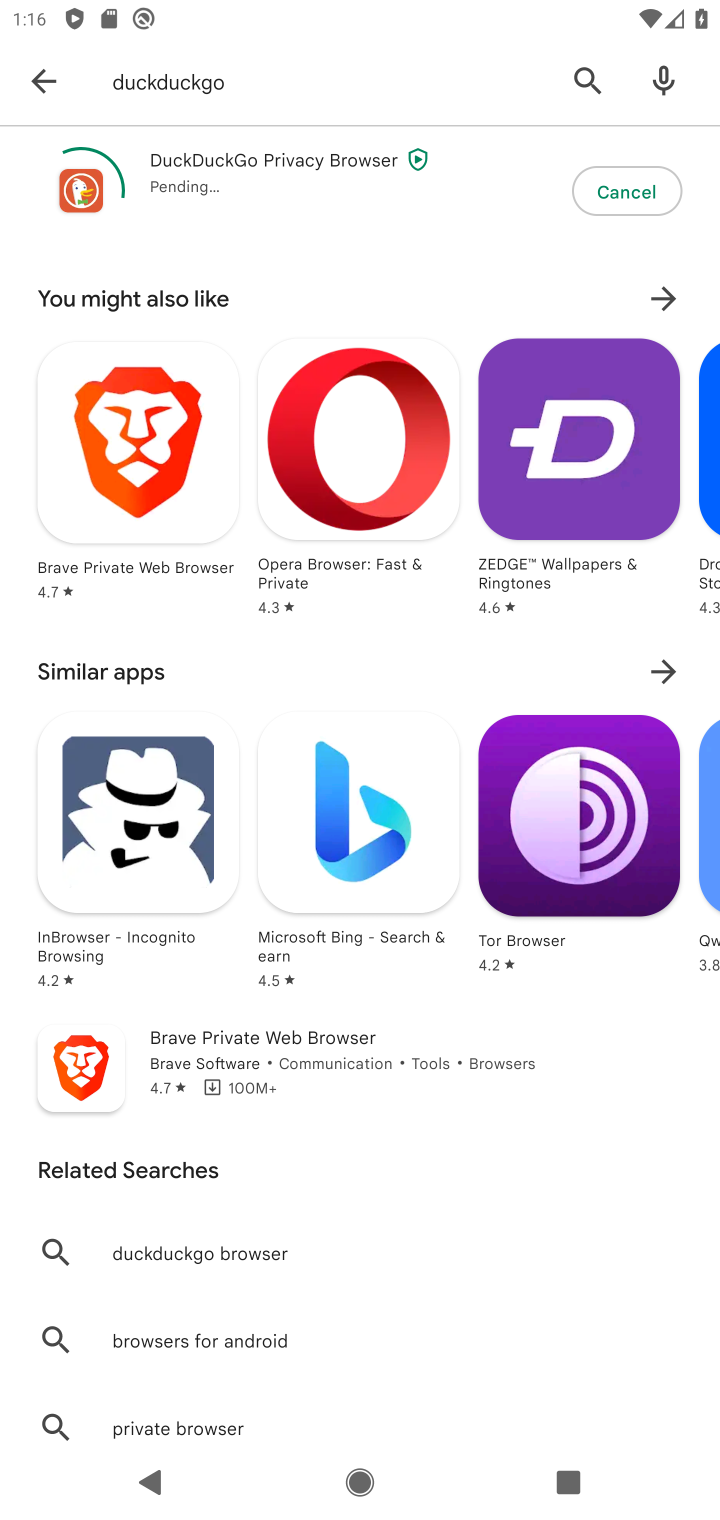
Step 27: click (642, 188)
Your task to perform on an android device: open app "DuckDuckGo Privacy Browser" (install if not already installed) Image 28: 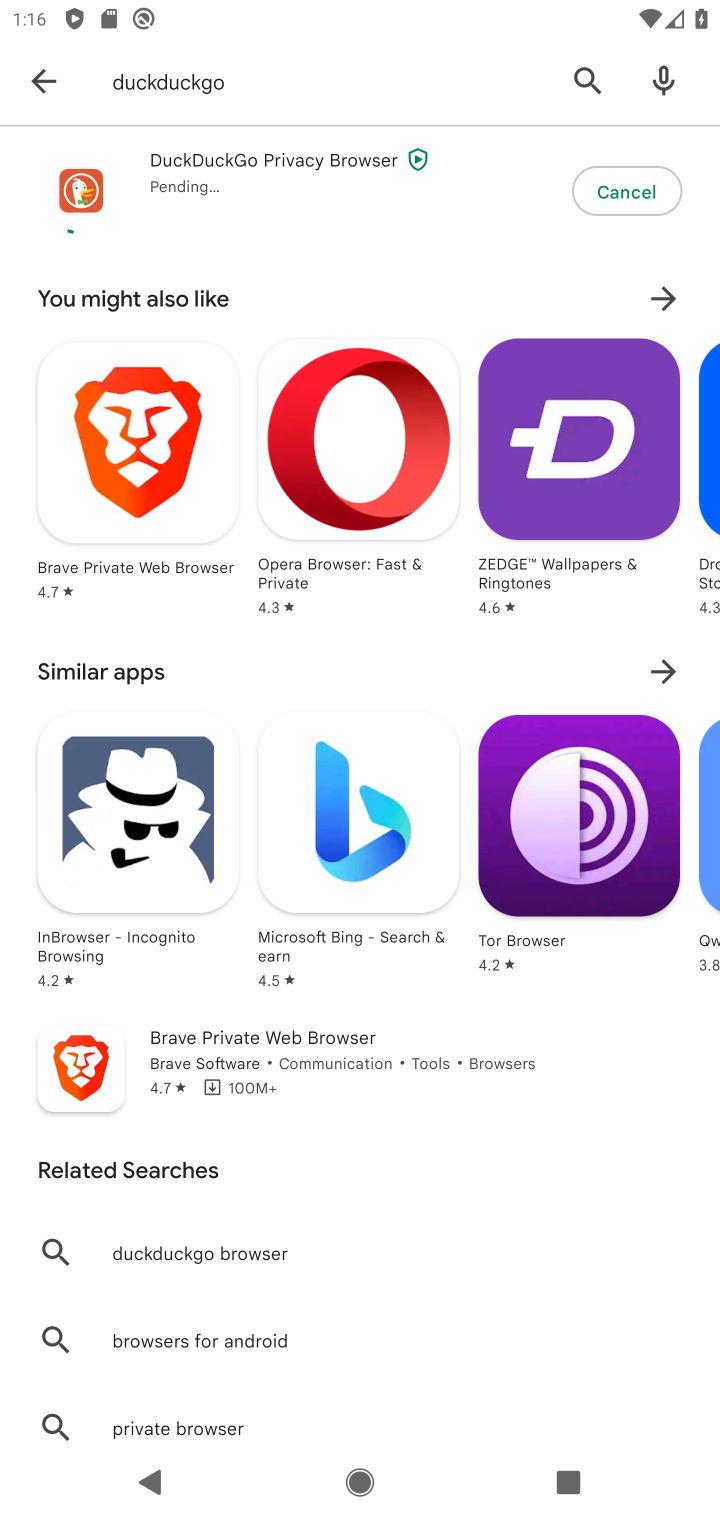
Step 28: task complete